Your task to perform on an android device: set the timer Image 0: 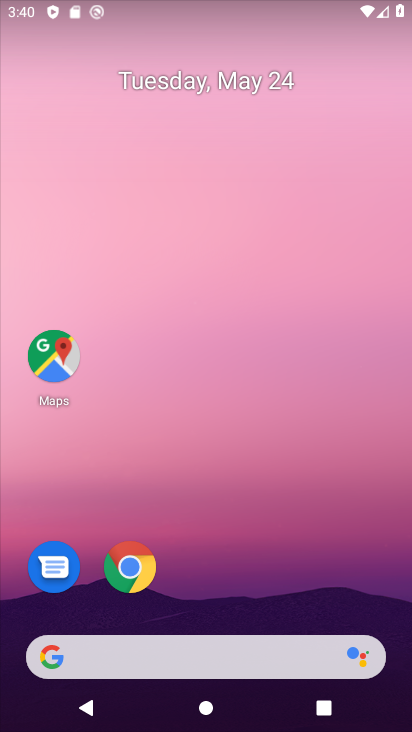
Step 0: drag from (208, 565) to (368, 13)
Your task to perform on an android device: set the timer Image 1: 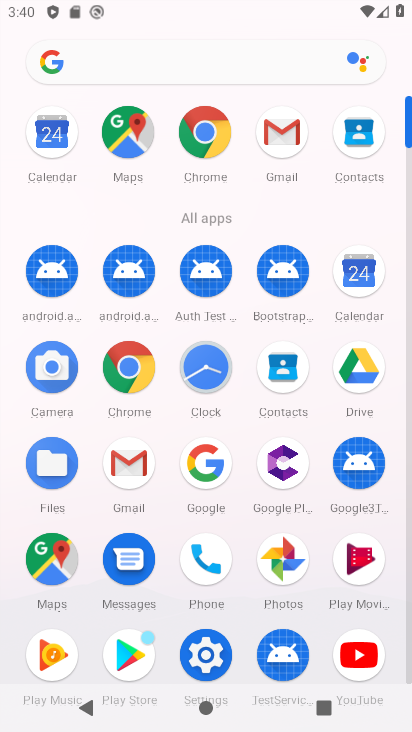
Step 1: click (203, 353)
Your task to perform on an android device: set the timer Image 2: 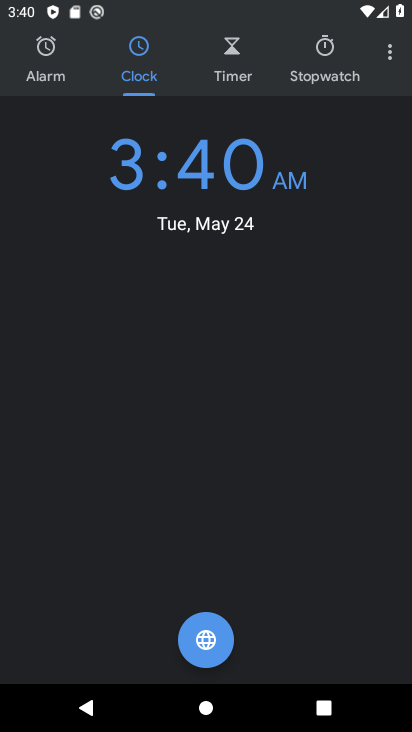
Step 2: click (234, 64)
Your task to perform on an android device: set the timer Image 3: 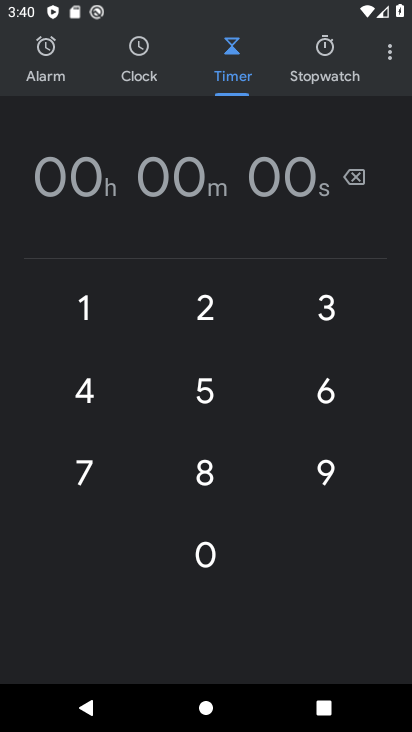
Step 3: click (85, 468)
Your task to perform on an android device: set the timer Image 4: 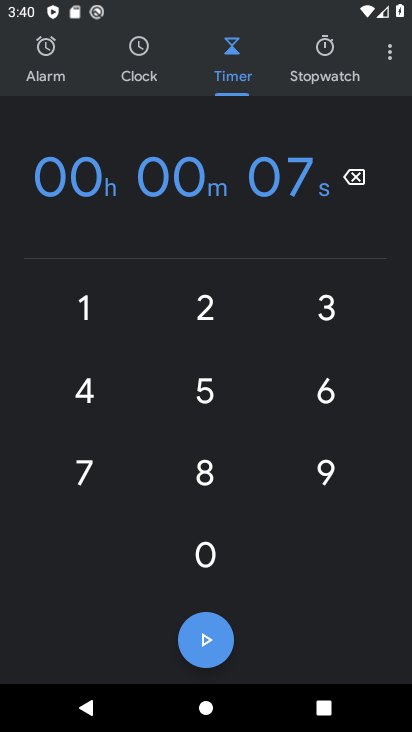
Step 4: click (203, 395)
Your task to perform on an android device: set the timer Image 5: 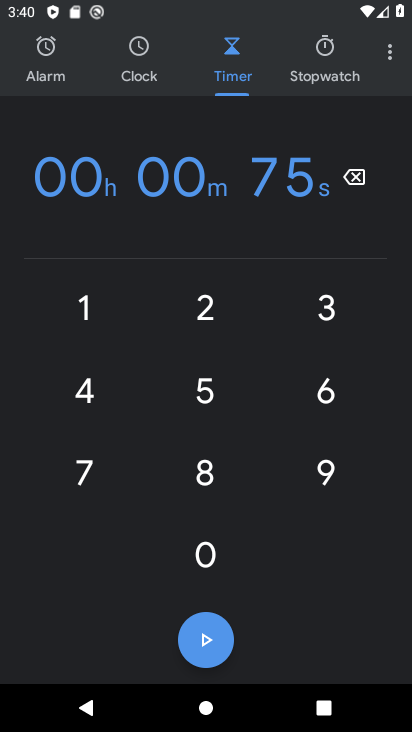
Step 5: click (340, 311)
Your task to perform on an android device: set the timer Image 6: 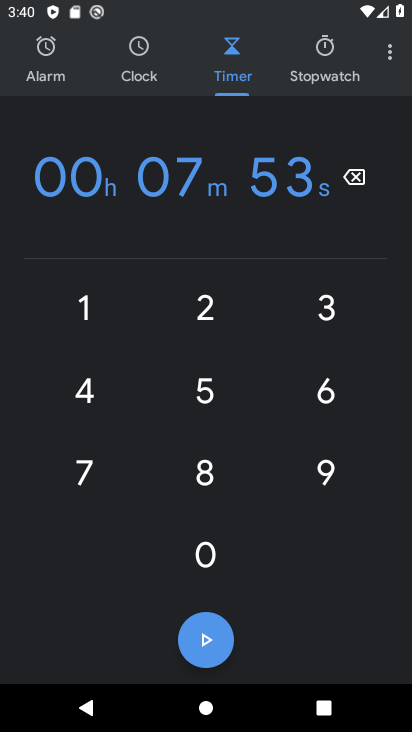
Step 6: click (214, 610)
Your task to perform on an android device: set the timer Image 7: 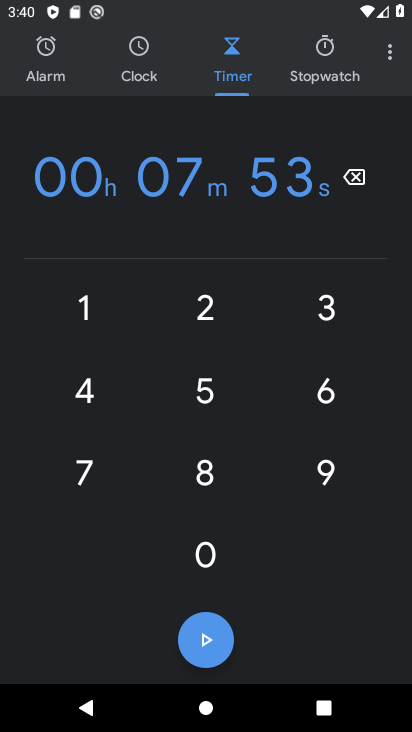
Step 7: click (219, 649)
Your task to perform on an android device: set the timer Image 8: 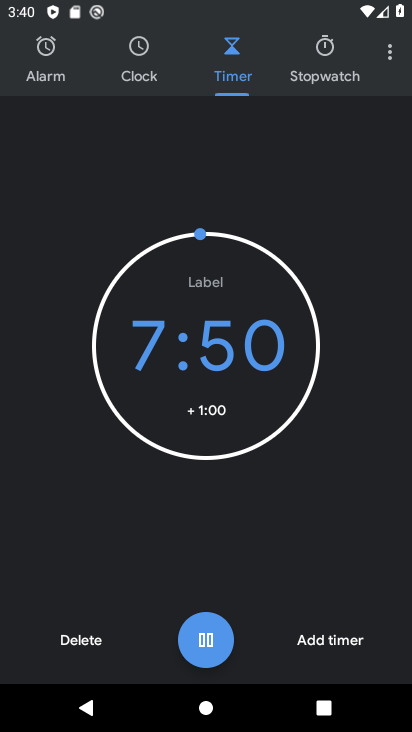
Step 8: task complete